Your task to perform on an android device: Open Google Maps Image 0: 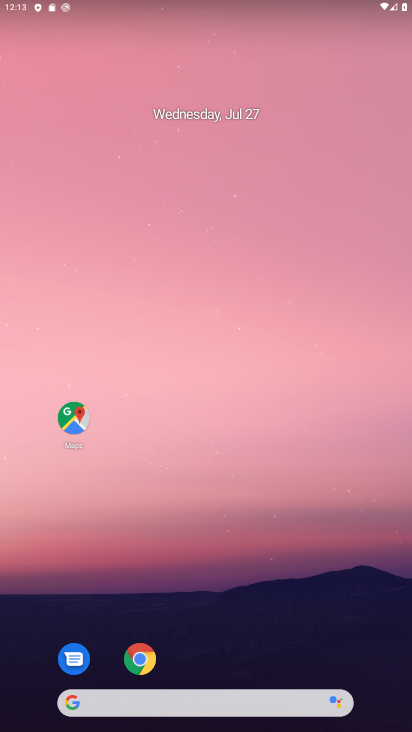
Step 0: click (259, 13)
Your task to perform on an android device: Open Google Maps Image 1: 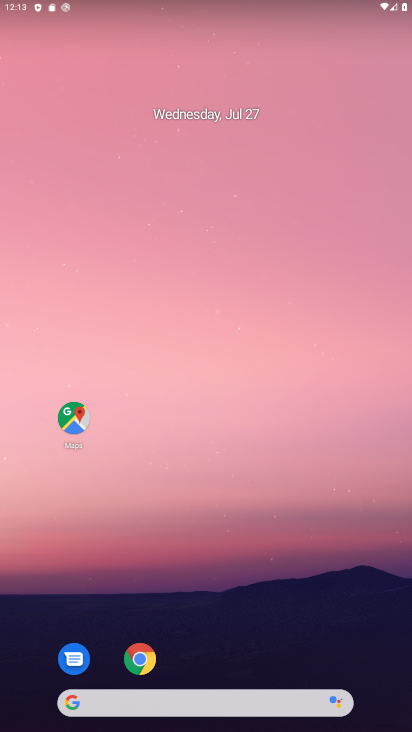
Step 1: drag from (217, 624) to (218, 0)
Your task to perform on an android device: Open Google Maps Image 2: 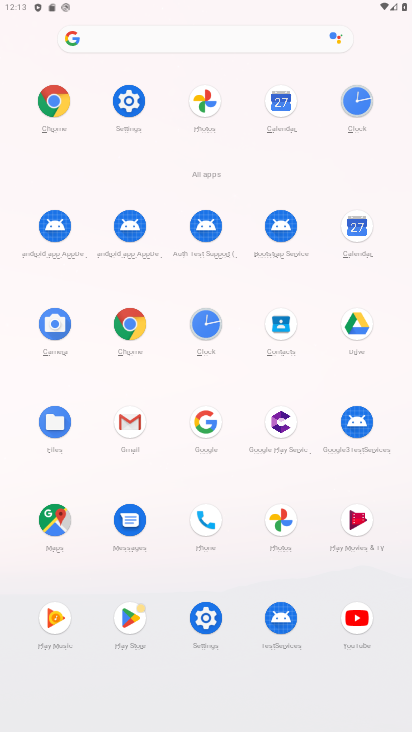
Step 2: click (48, 528)
Your task to perform on an android device: Open Google Maps Image 3: 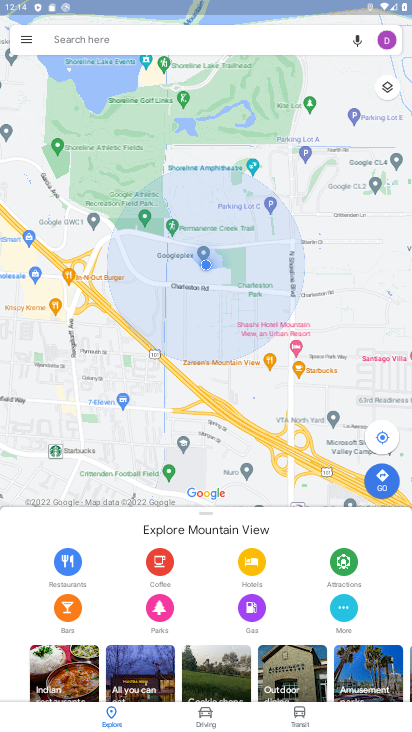
Step 3: task complete